Your task to perform on an android device: Go to battery settings Image 0: 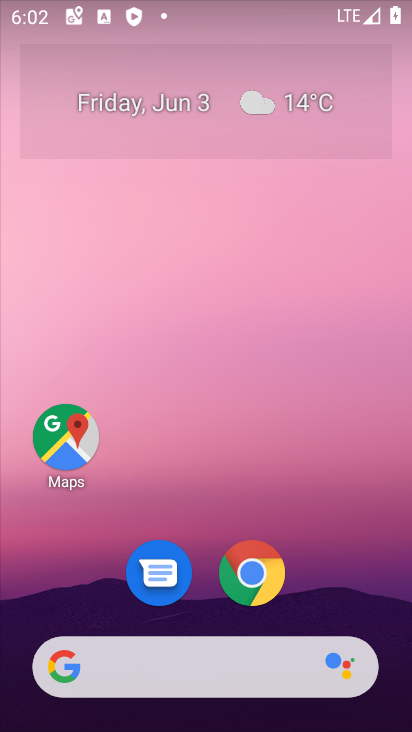
Step 0: drag from (350, 664) to (324, 226)
Your task to perform on an android device: Go to battery settings Image 1: 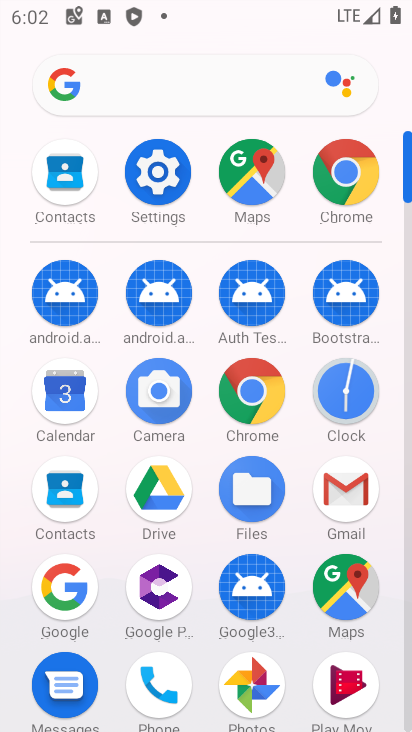
Step 1: click (179, 167)
Your task to perform on an android device: Go to battery settings Image 2: 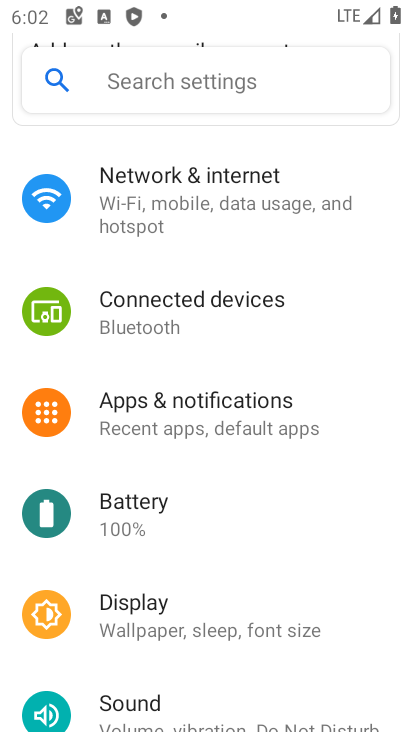
Step 2: click (188, 509)
Your task to perform on an android device: Go to battery settings Image 3: 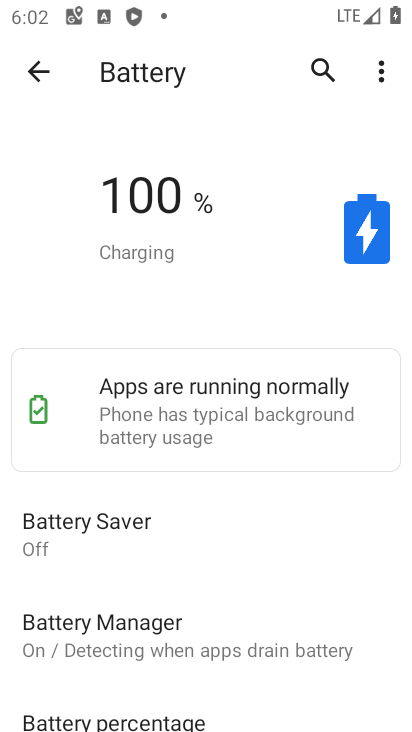
Step 3: task complete